Your task to perform on an android device: allow cookies in the chrome app Image 0: 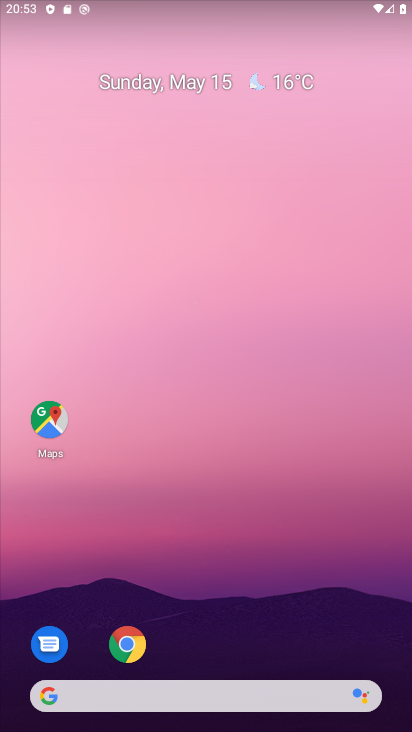
Step 0: click (123, 639)
Your task to perform on an android device: allow cookies in the chrome app Image 1: 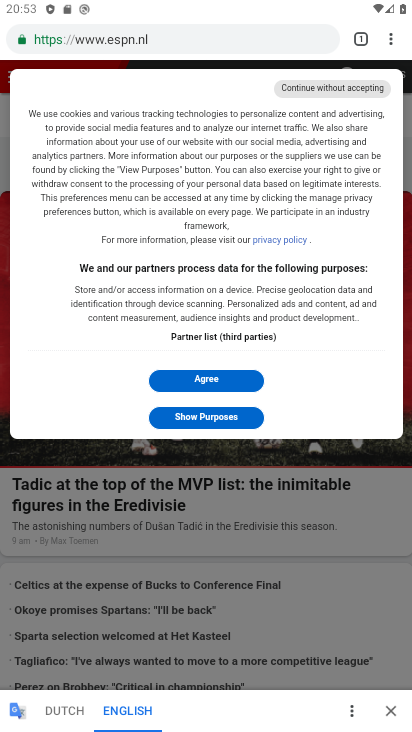
Step 1: click (266, 544)
Your task to perform on an android device: allow cookies in the chrome app Image 2: 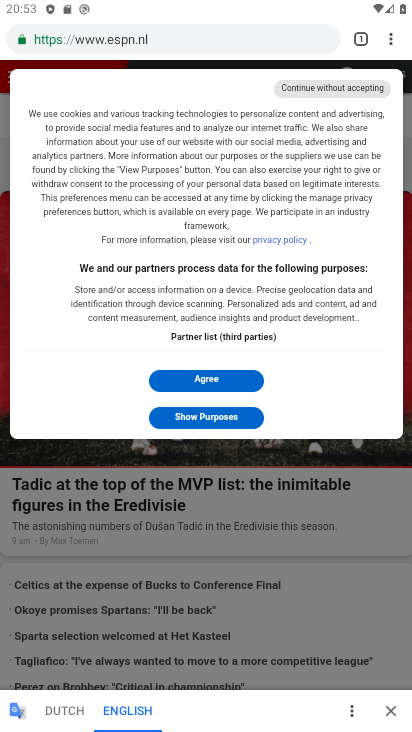
Step 2: click (220, 381)
Your task to perform on an android device: allow cookies in the chrome app Image 3: 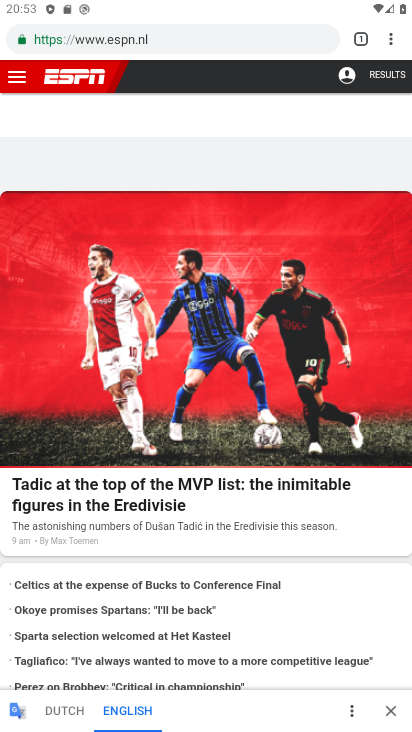
Step 3: drag from (391, 34) to (274, 438)
Your task to perform on an android device: allow cookies in the chrome app Image 4: 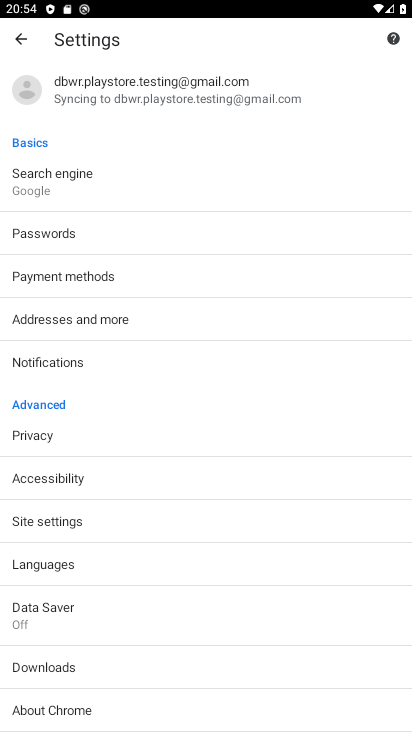
Step 4: click (59, 521)
Your task to perform on an android device: allow cookies in the chrome app Image 5: 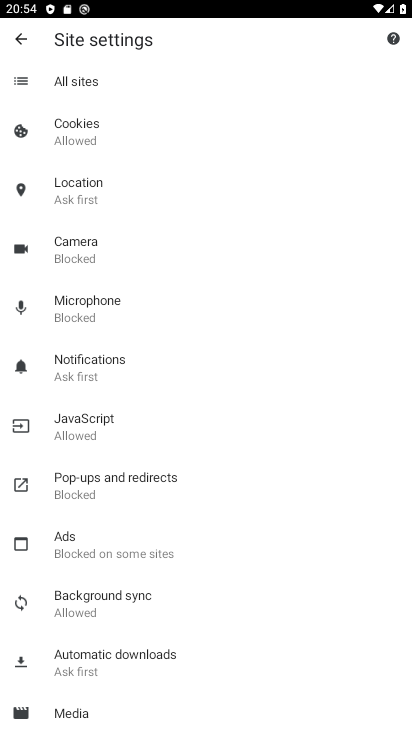
Step 5: click (85, 138)
Your task to perform on an android device: allow cookies in the chrome app Image 6: 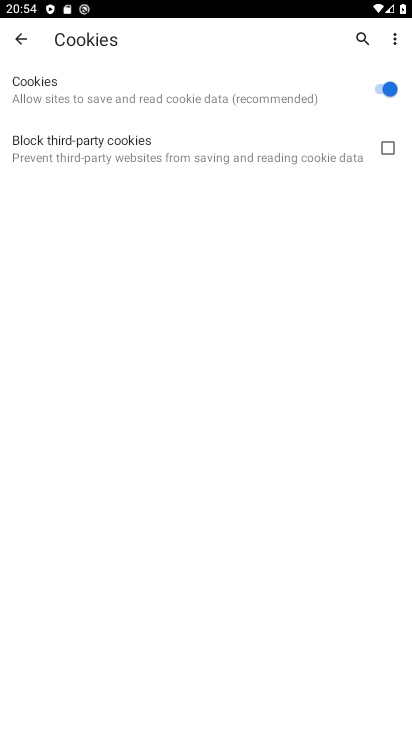
Step 6: task complete